Your task to perform on an android device: Go to Amazon Image 0: 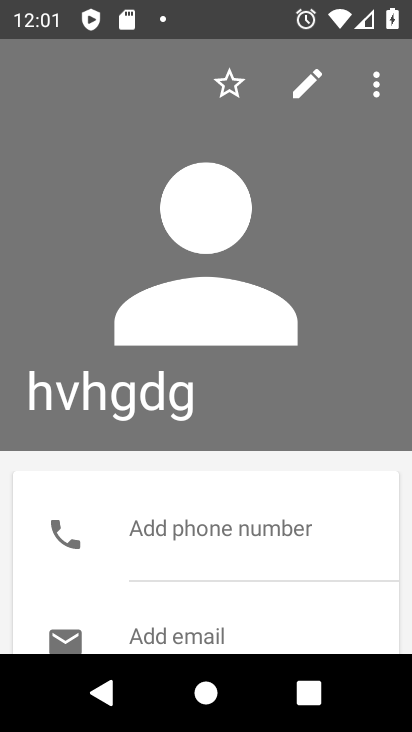
Step 0: press home button
Your task to perform on an android device: Go to Amazon Image 1: 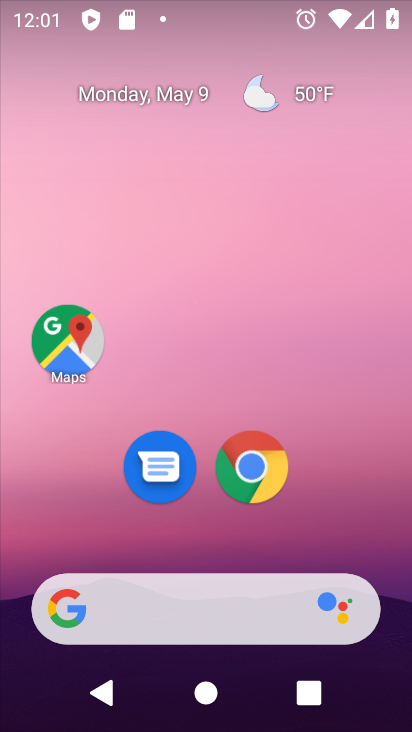
Step 1: click (250, 464)
Your task to perform on an android device: Go to Amazon Image 2: 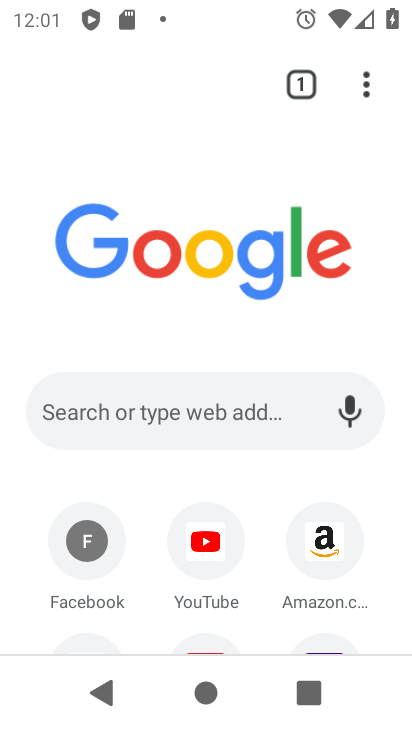
Step 2: click (325, 525)
Your task to perform on an android device: Go to Amazon Image 3: 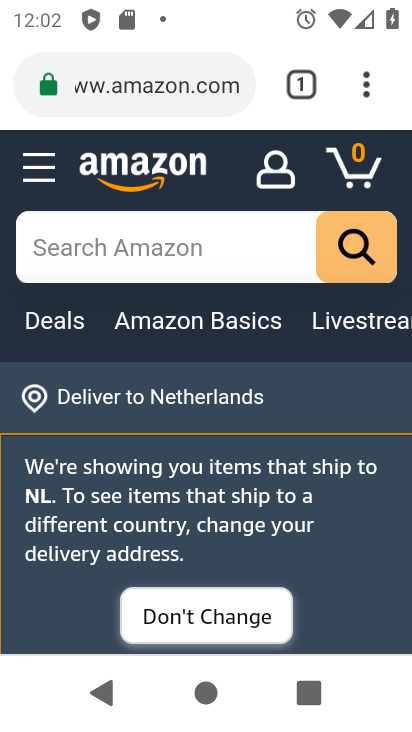
Step 3: task complete